Your task to perform on an android device: Is it going to rain this weekend? Image 0: 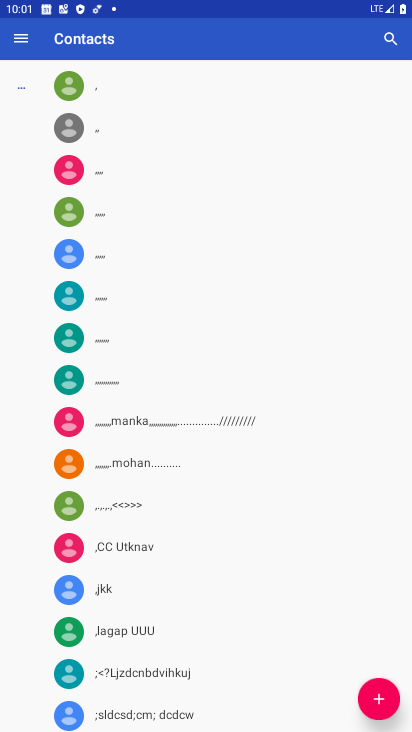
Step 0: click (130, 663)
Your task to perform on an android device: Is it going to rain this weekend? Image 1: 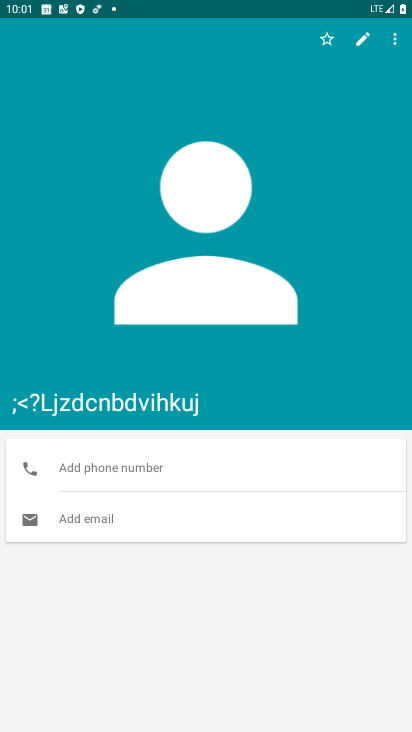
Step 1: press home button
Your task to perform on an android device: Is it going to rain this weekend? Image 2: 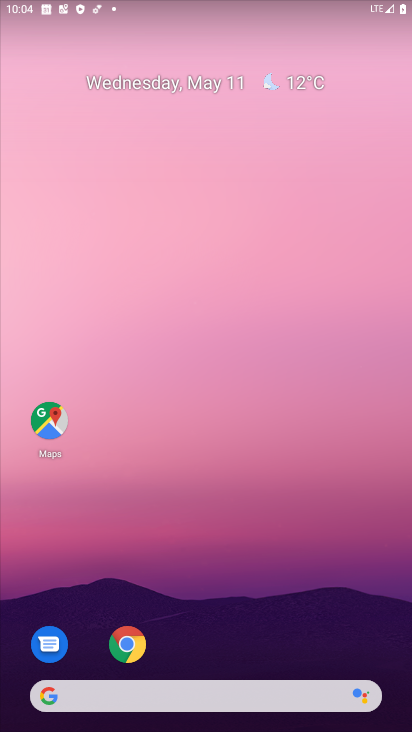
Step 2: drag from (252, 620) to (303, 75)
Your task to perform on an android device: Is it going to rain this weekend? Image 3: 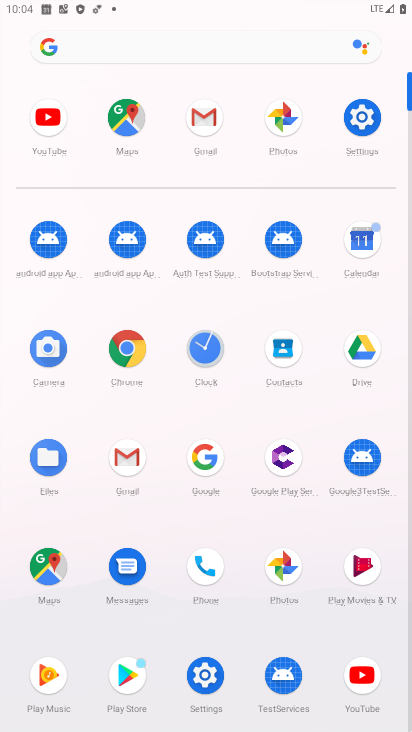
Step 3: click (190, 53)
Your task to perform on an android device: Is it going to rain this weekend? Image 4: 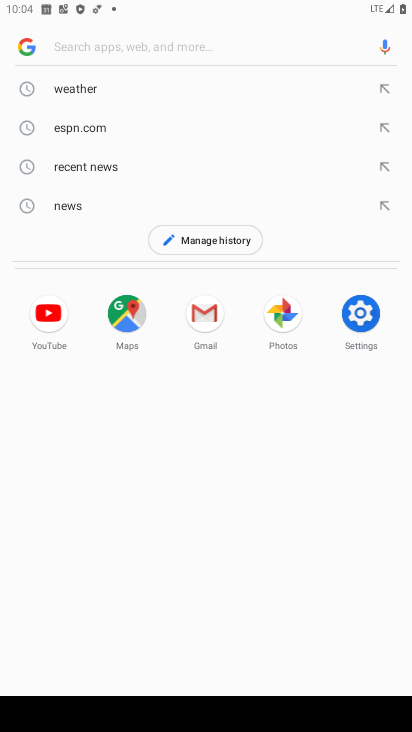
Step 4: click (147, 98)
Your task to perform on an android device: Is it going to rain this weekend? Image 5: 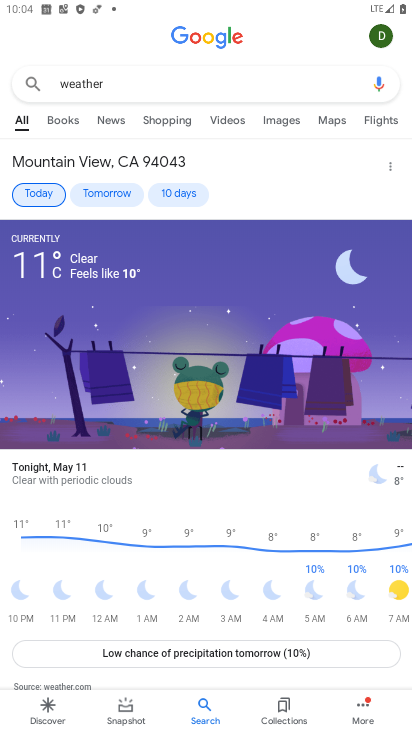
Step 5: click (179, 199)
Your task to perform on an android device: Is it going to rain this weekend? Image 6: 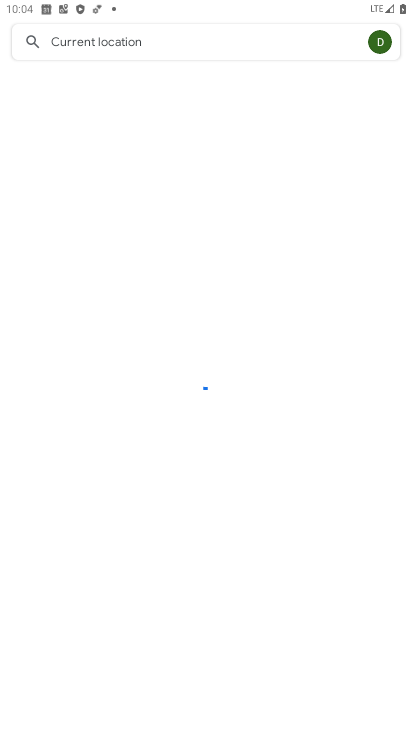
Step 6: task complete